Your task to perform on an android device: refresh tabs in the chrome app Image 0: 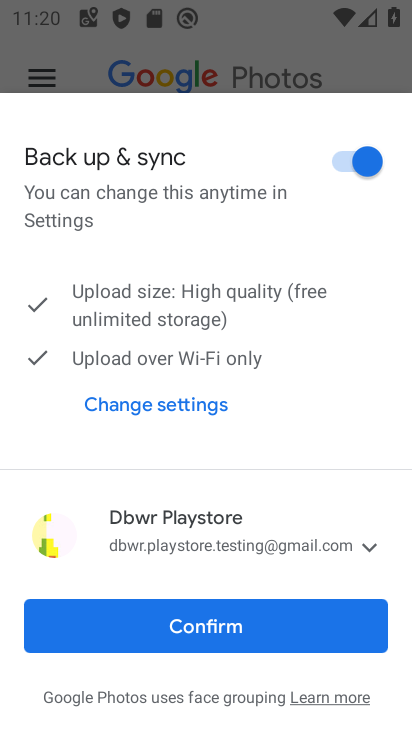
Step 0: press home button
Your task to perform on an android device: refresh tabs in the chrome app Image 1: 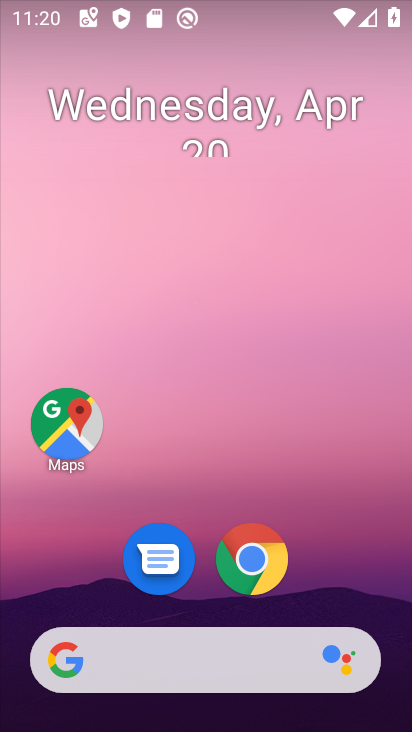
Step 1: click (256, 569)
Your task to perform on an android device: refresh tabs in the chrome app Image 2: 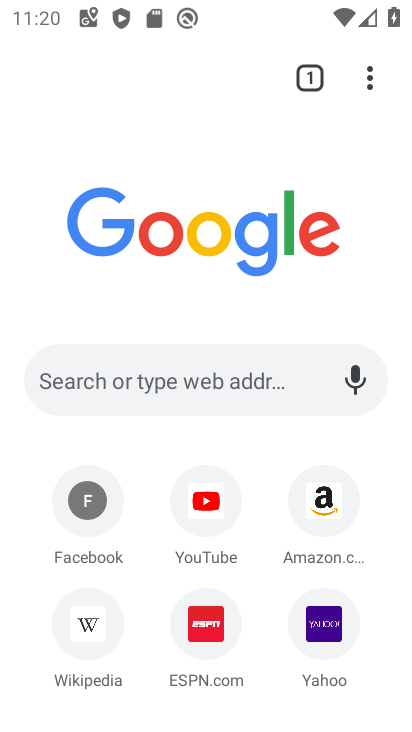
Step 2: click (365, 77)
Your task to perform on an android device: refresh tabs in the chrome app Image 3: 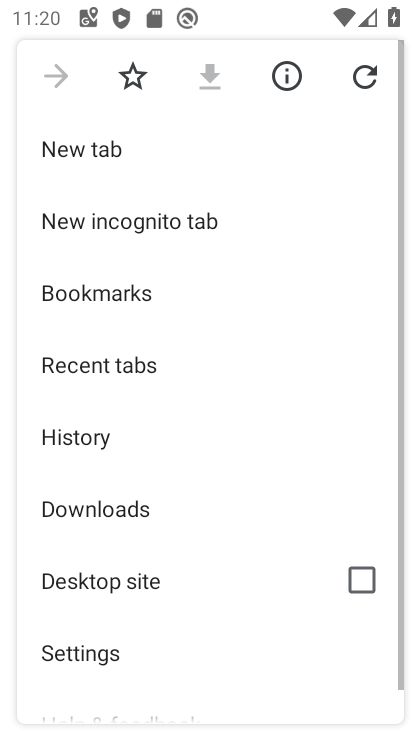
Step 3: click (365, 77)
Your task to perform on an android device: refresh tabs in the chrome app Image 4: 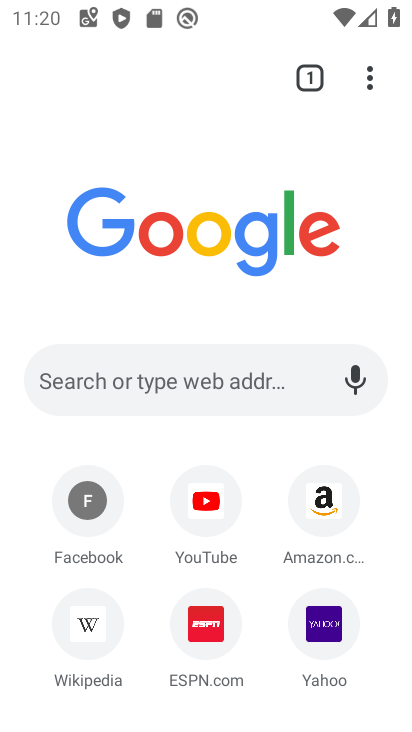
Step 4: task complete